Your task to perform on an android device: Search for seafood restaurants on Google Maps Image 0: 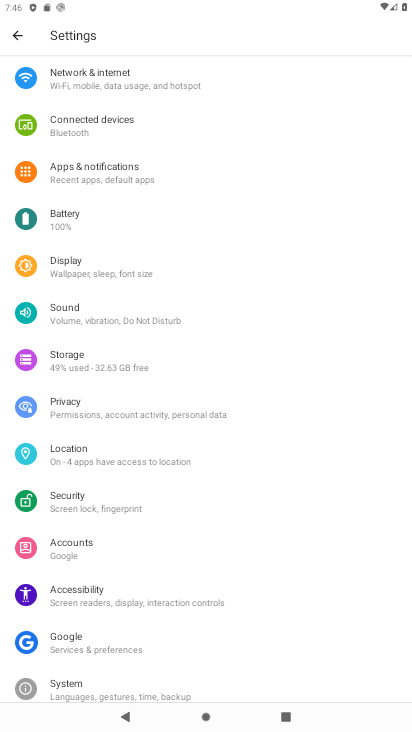
Step 0: press home button
Your task to perform on an android device: Search for seafood restaurants on Google Maps Image 1: 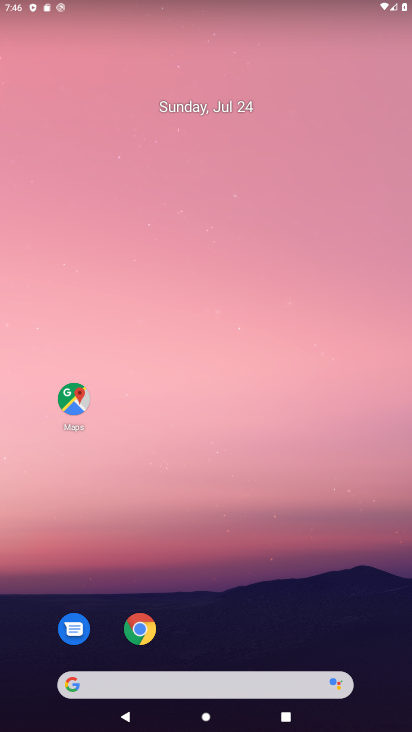
Step 1: drag from (207, 640) to (197, 165)
Your task to perform on an android device: Search for seafood restaurants on Google Maps Image 2: 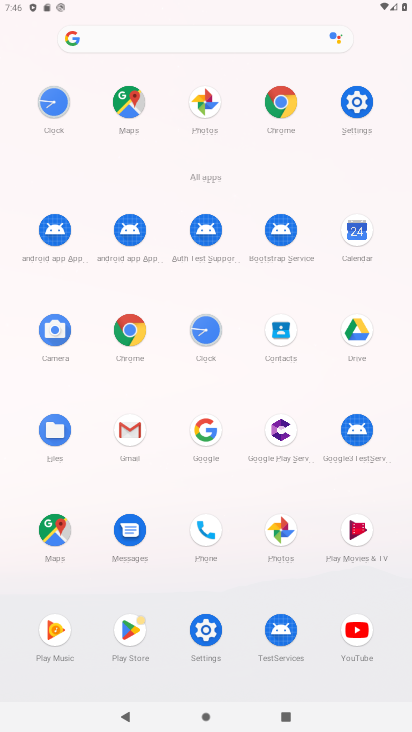
Step 2: click (54, 550)
Your task to perform on an android device: Search for seafood restaurants on Google Maps Image 3: 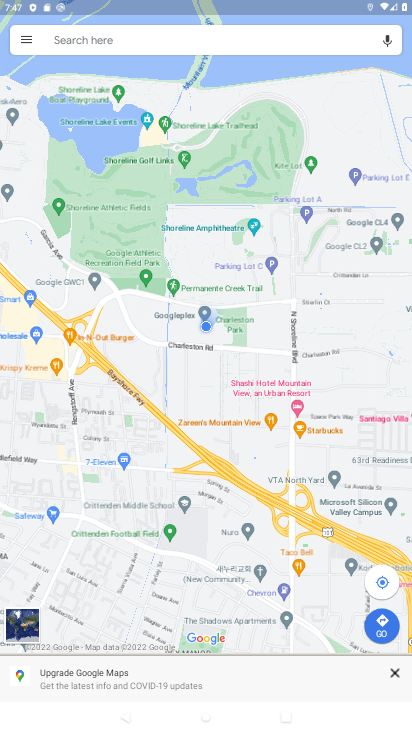
Step 3: click (197, 46)
Your task to perform on an android device: Search for seafood restaurants on Google Maps Image 4: 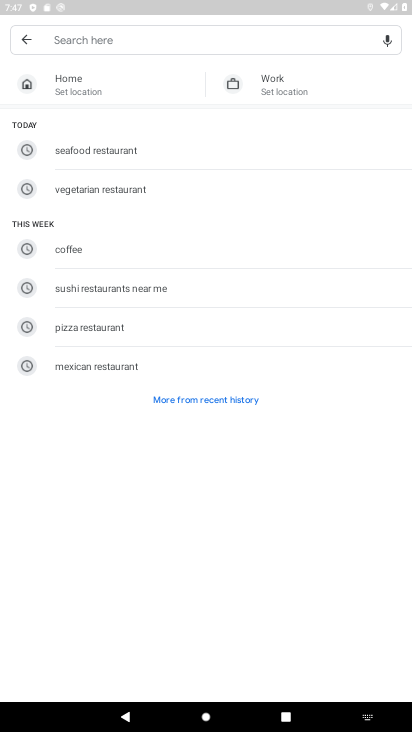
Step 4: click (128, 146)
Your task to perform on an android device: Search for seafood restaurants on Google Maps Image 5: 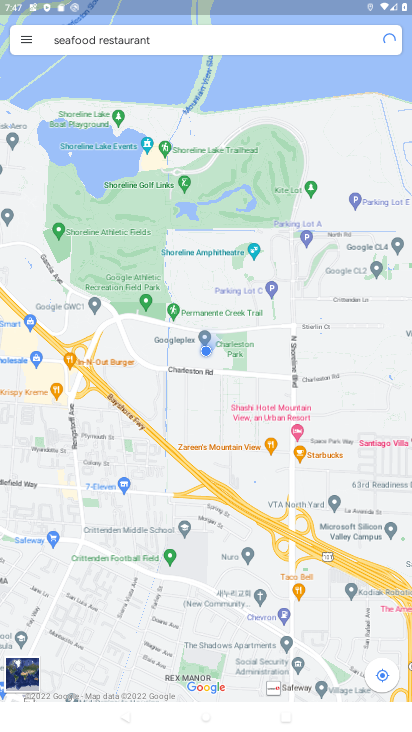
Step 5: task complete